Your task to perform on an android device: Go to display settings Image 0: 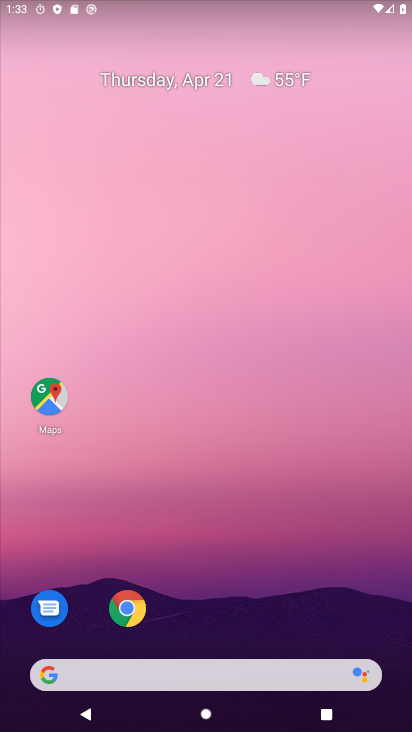
Step 0: drag from (158, 490) to (55, 65)
Your task to perform on an android device: Go to display settings Image 1: 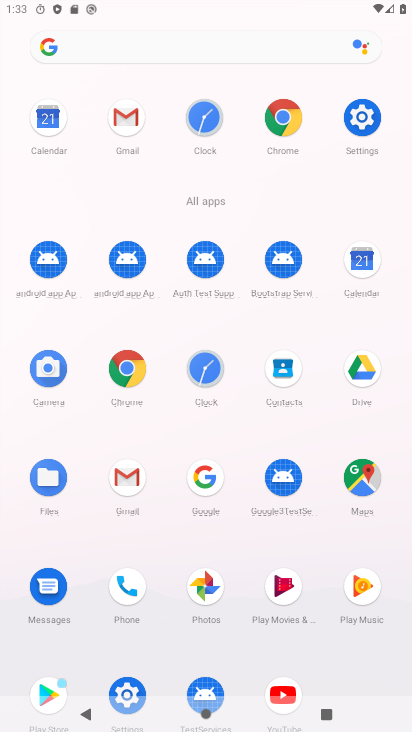
Step 1: click (128, 690)
Your task to perform on an android device: Go to display settings Image 2: 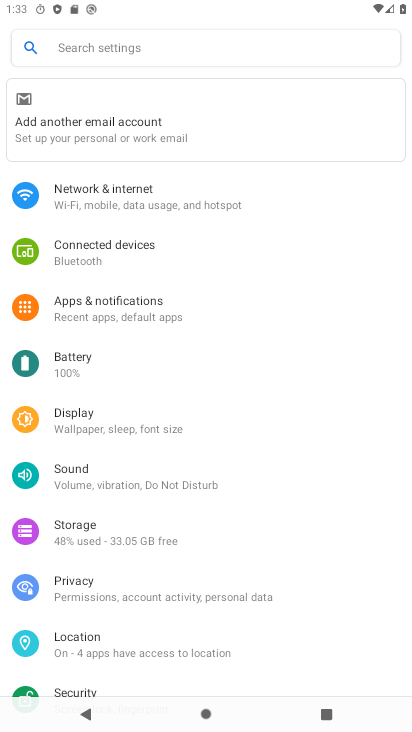
Step 2: click (88, 425)
Your task to perform on an android device: Go to display settings Image 3: 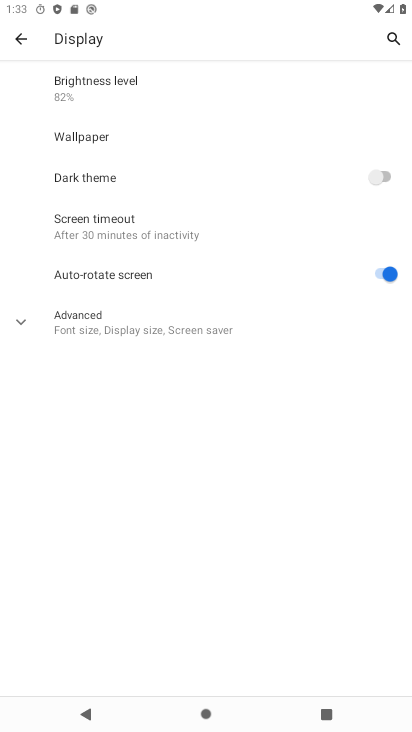
Step 3: click (108, 321)
Your task to perform on an android device: Go to display settings Image 4: 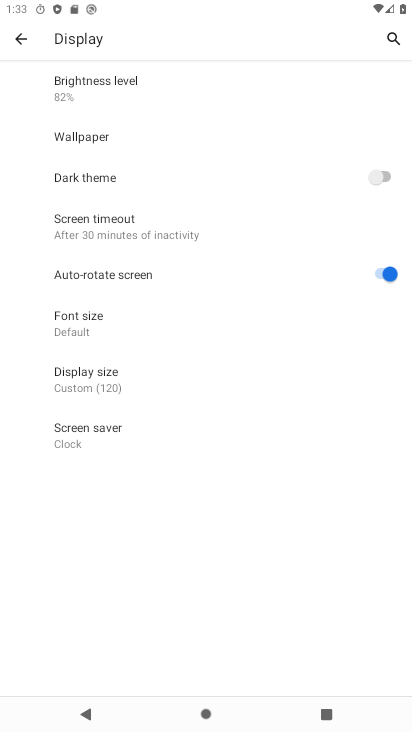
Step 4: task complete